Your task to perform on an android device: Go to notification settings Image 0: 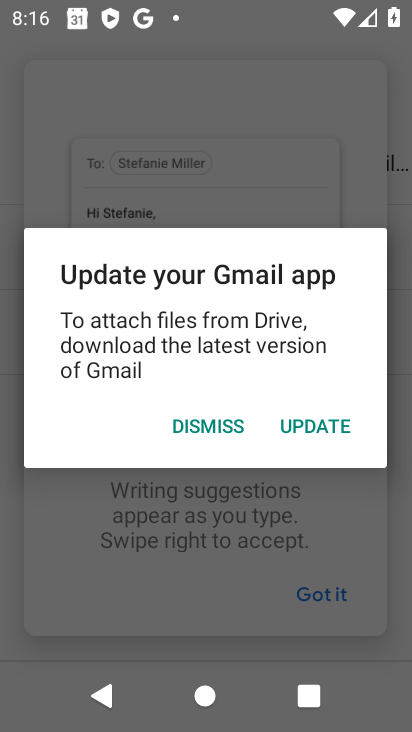
Step 0: press back button
Your task to perform on an android device: Go to notification settings Image 1: 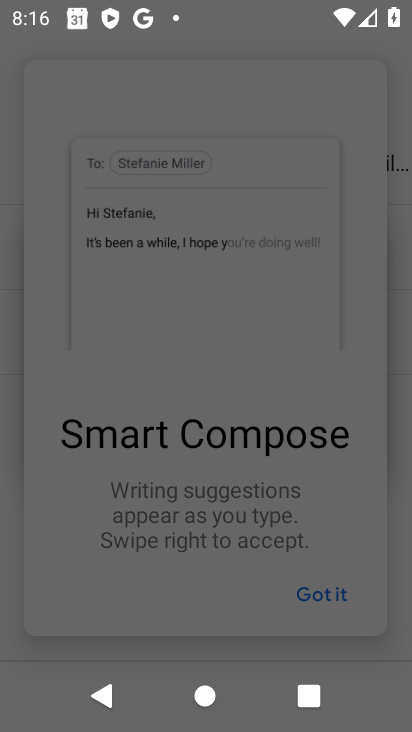
Step 1: press home button
Your task to perform on an android device: Go to notification settings Image 2: 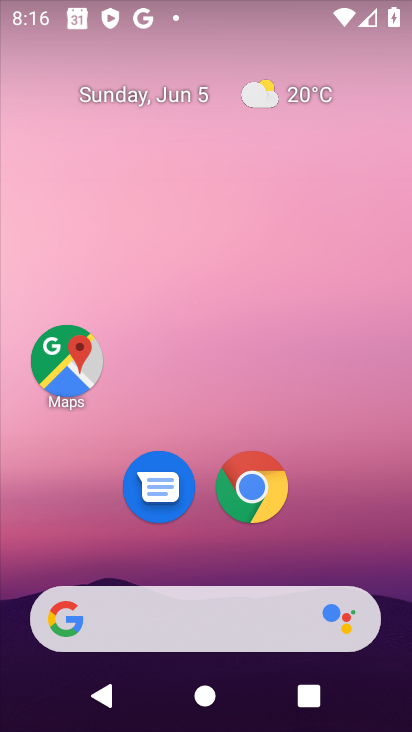
Step 2: drag from (179, 546) to (333, 13)
Your task to perform on an android device: Go to notification settings Image 3: 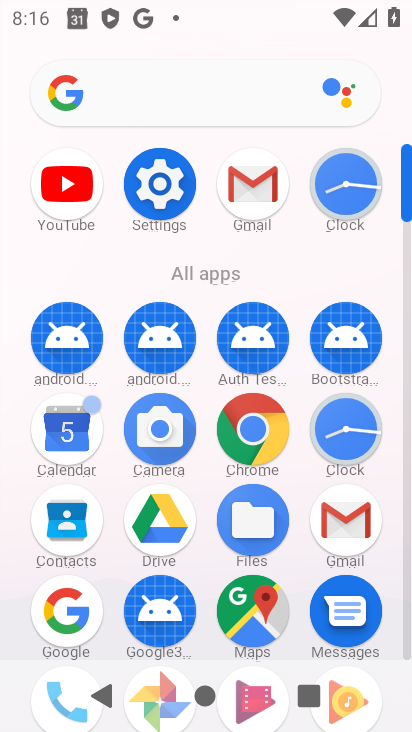
Step 3: click (156, 201)
Your task to perform on an android device: Go to notification settings Image 4: 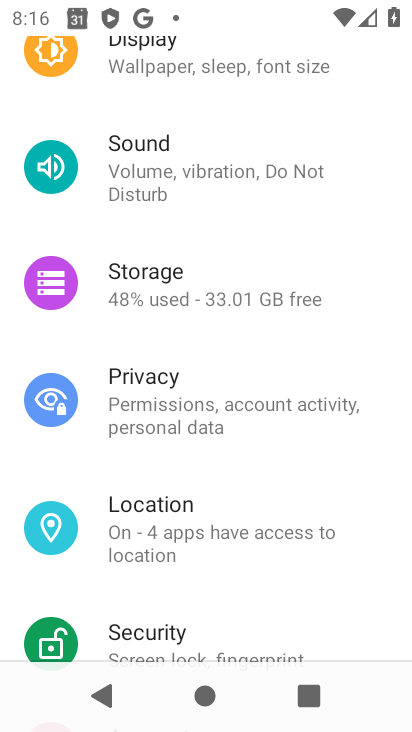
Step 4: drag from (276, 141) to (207, 630)
Your task to perform on an android device: Go to notification settings Image 5: 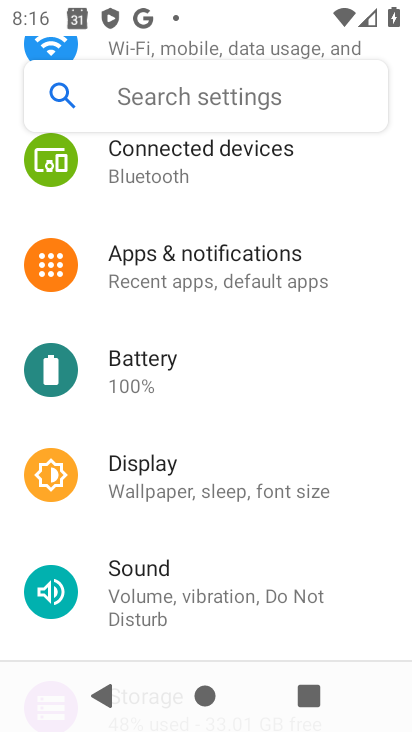
Step 5: click (213, 275)
Your task to perform on an android device: Go to notification settings Image 6: 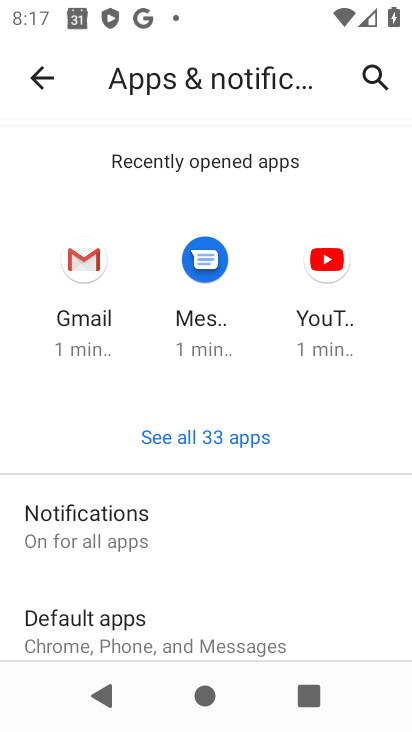
Step 6: click (144, 547)
Your task to perform on an android device: Go to notification settings Image 7: 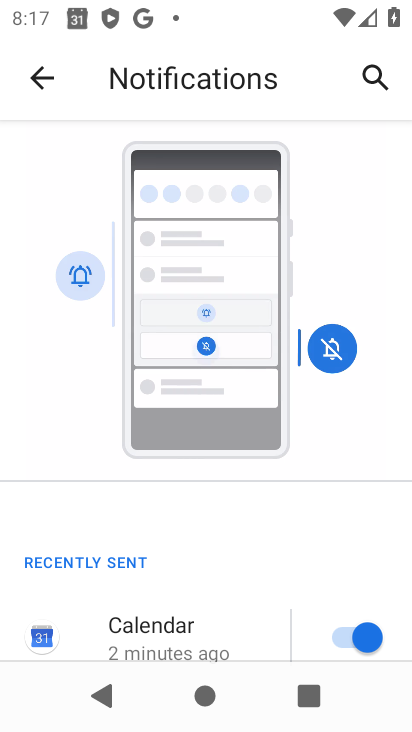
Step 7: task complete